Your task to perform on an android device: open chrome and create a bookmark for the current page Image 0: 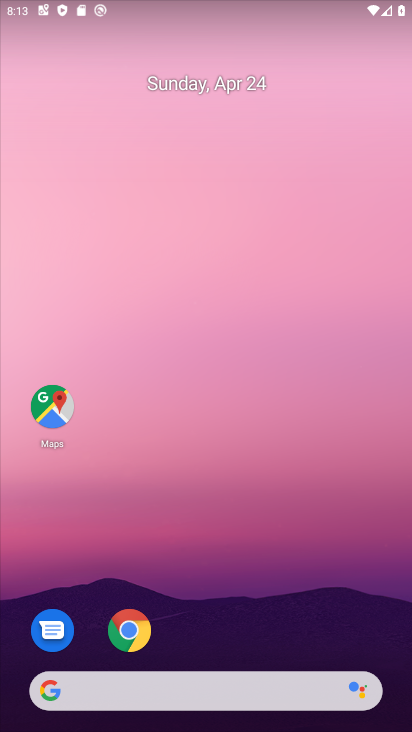
Step 0: click (123, 618)
Your task to perform on an android device: open chrome and create a bookmark for the current page Image 1: 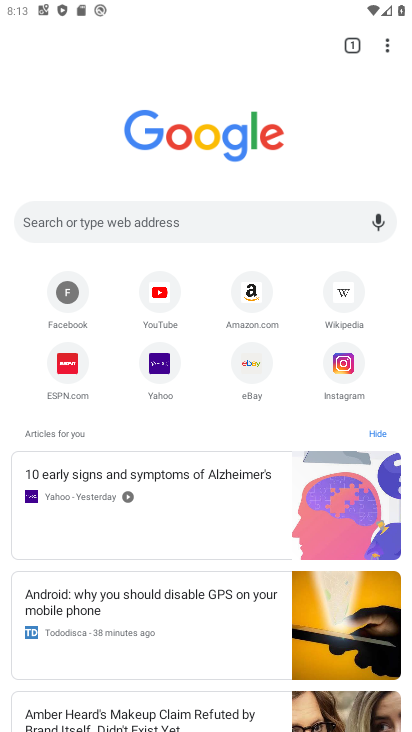
Step 1: task complete